Your task to perform on an android device: Open Yahoo.com Image 0: 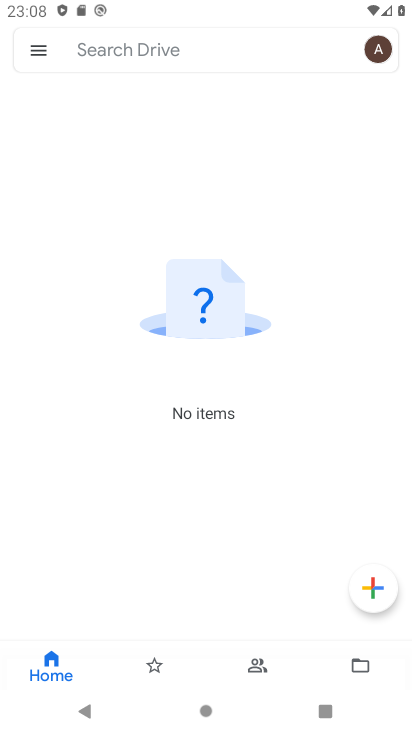
Step 0: press home button
Your task to perform on an android device: Open Yahoo.com Image 1: 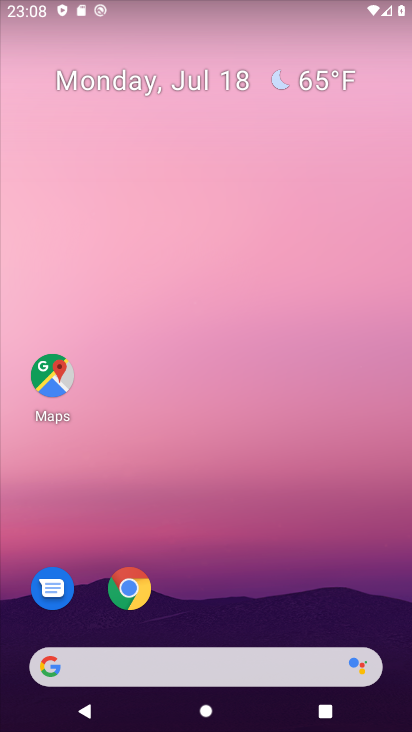
Step 1: click (49, 662)
Your task to perform on an android device: Open Yahoo.com Image 2: 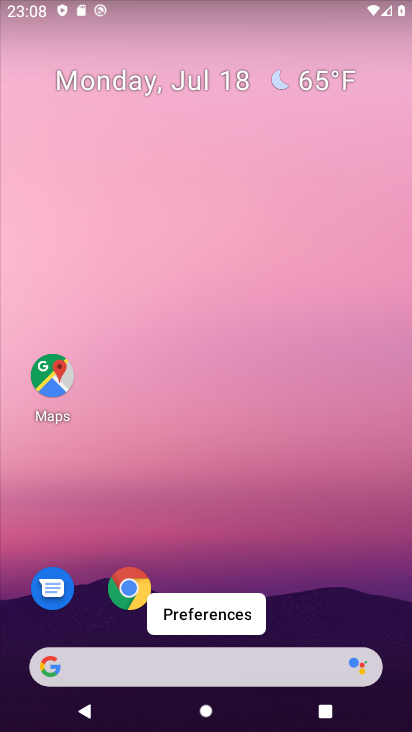
Step 2: click (48, 663)
Your task to perform on an android device: Open Yahoo.com Image 3: 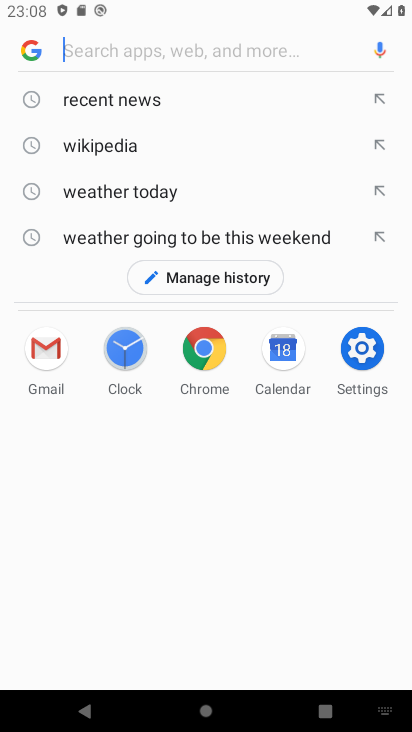
Step 3: type "Yahoo.com"
Your task to perform on an android device: Open Yahoo.com Image 4: 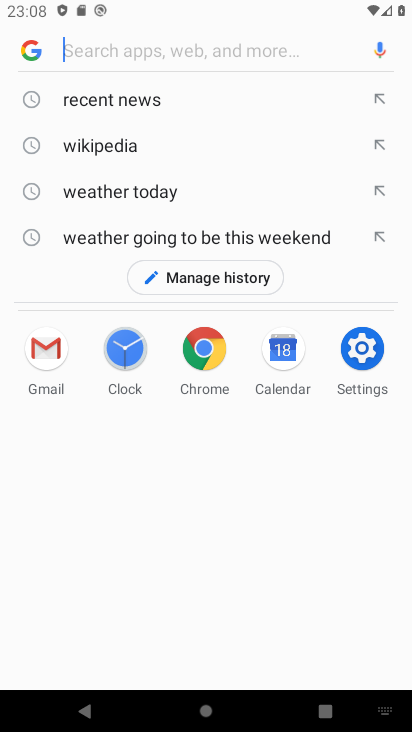
Step 4: click (139, 50)
Your task to perform on an android device: Open Yahoo.com Image 5: 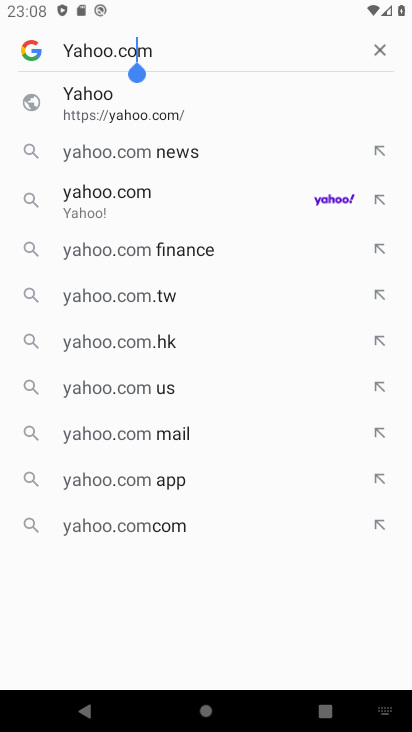
Step 5: press enter
Your task to perform on an android device: Open Yahoo.com Image 6: 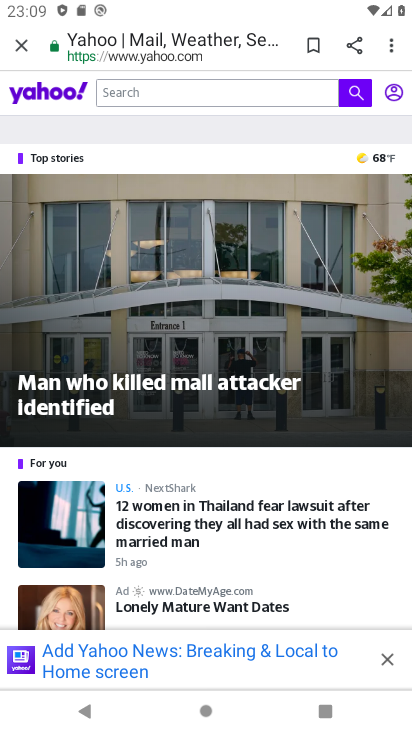
Step 6: task complete